Your task to perform on an android device: turn on translation in the chrome app Image 0: 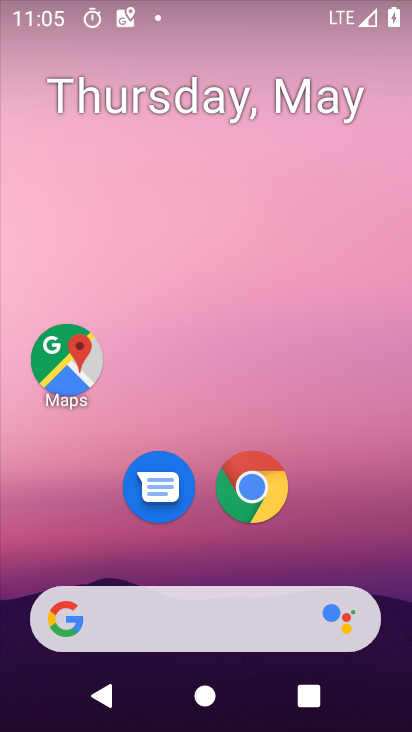
Step 0: drag from (233, 650) to (379, 512)
Your task to perform on an android device: turn on translation in the chrome app Image 1: 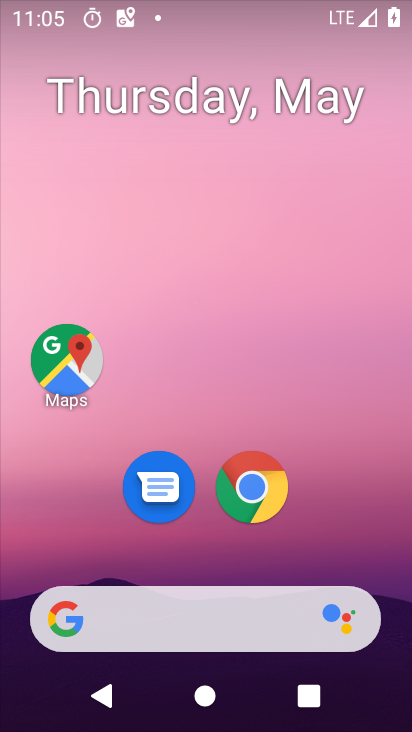
Step 1: click (267, 417)
Your task to perform on an android device: turn on translation in the chrome app Image 2: 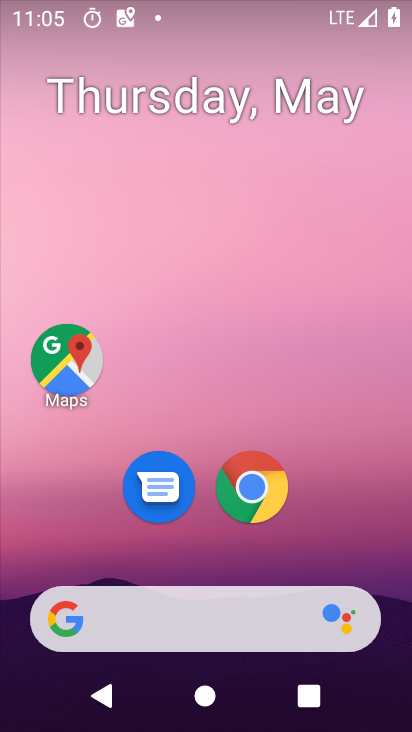
Step 2: click (254, 499)
Your task to perform on an android device: turn on translation in the chrome app Image 3: 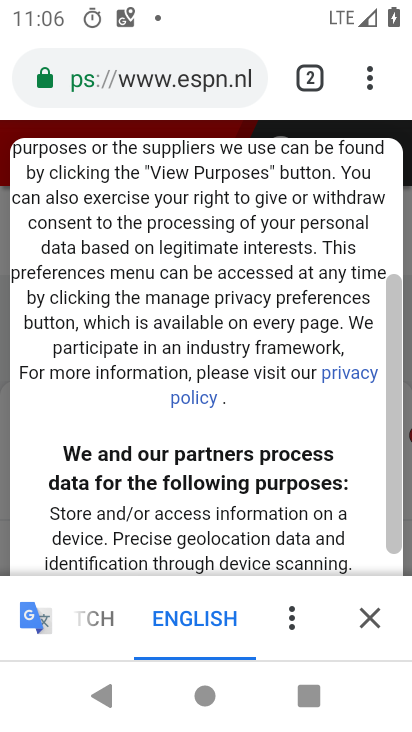
Step 3: click (363, 76)
Your task to perform on an android device: turn on translation in the chrome app Image 4: 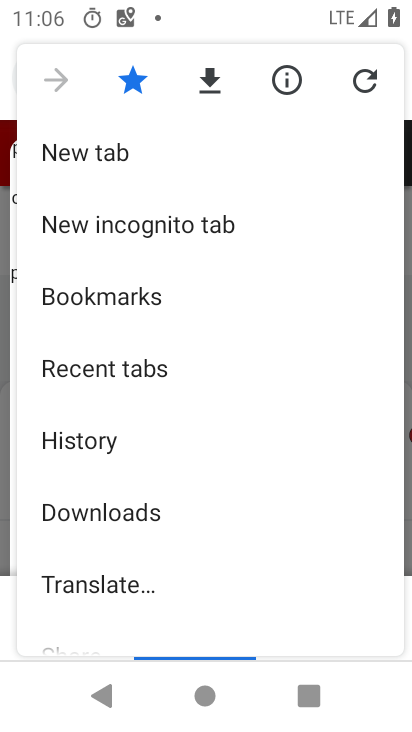
Step 4: drag from (178, 440) to (219, 283)
Your task to perform on an android device: turn on translation in the chrome app Image 5: 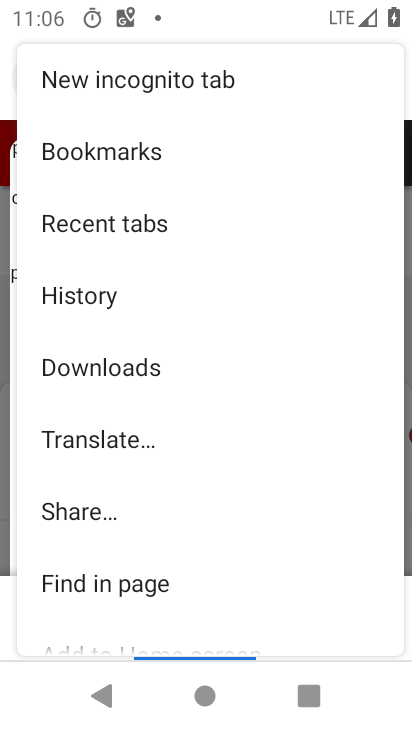
Step 5: click (168, 435)
Your task to perform on an android device: turn on translation in the chrome app Image 6: 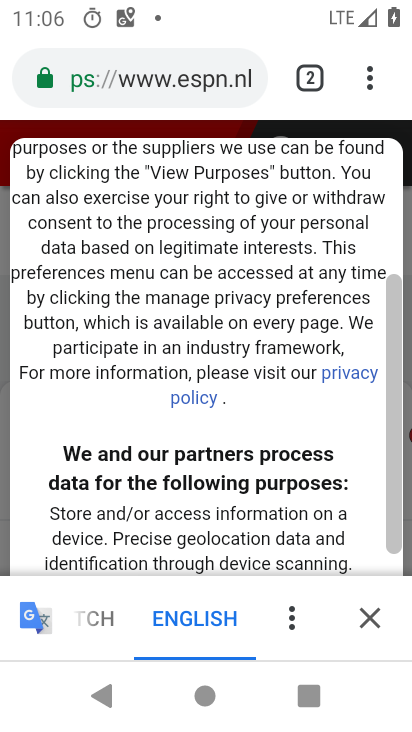
Step 6: click (297, 617)
Your task to perform on an android device: turn on translation in the chrome app Image 7: 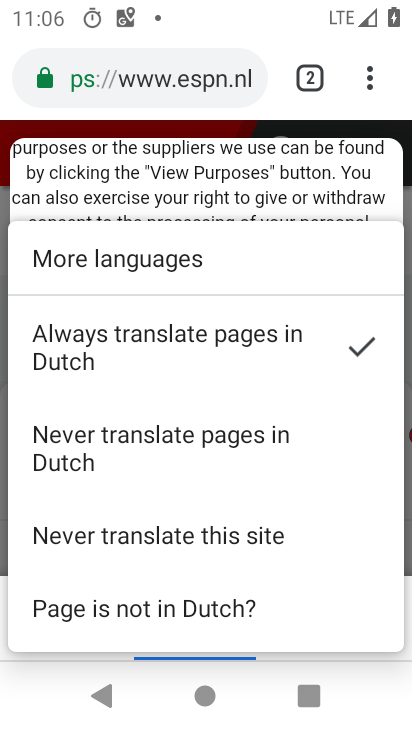
Step 7: task complete